Your task to perform on an android device: Go to battery settings Image 0: 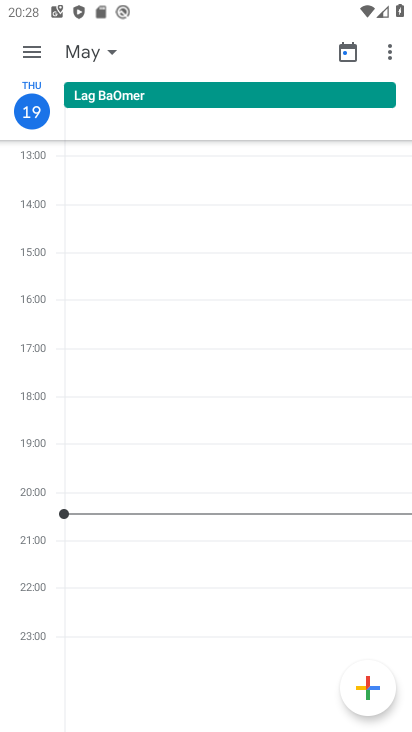
Step 0: press home button
Your task to perform on an android device: Go to battery settings Image 1: 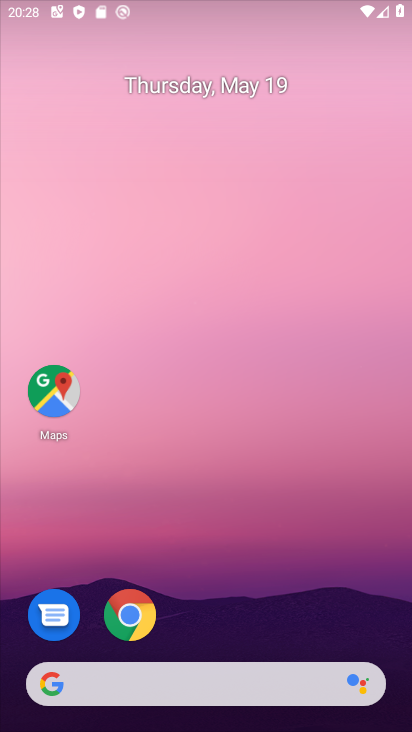
Step 1: drag from (256, 584) to (295, 57)
Your task to perform on an android device: Go to battery settings Image 2: 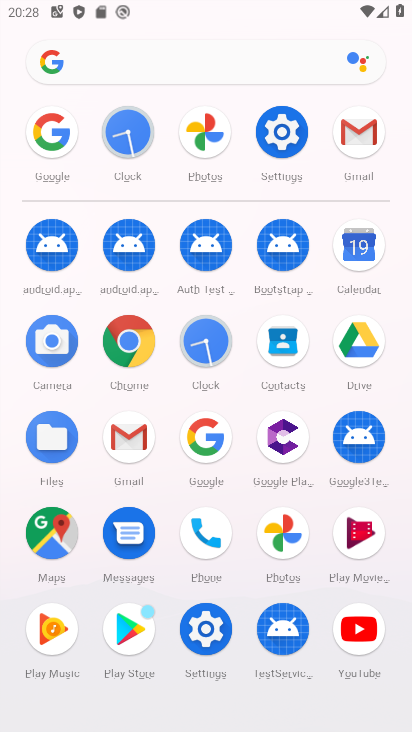
Step 2: click (278, 117)
Your task to perform on an android device: Go to battery settings Image 3: 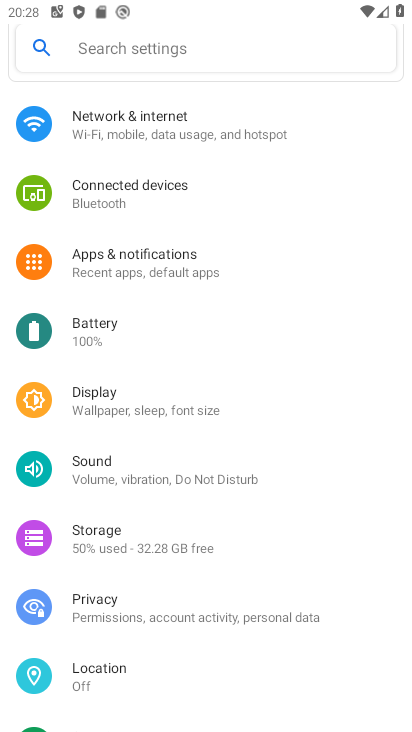
Step 3: click (133, 326)
Your task to perform on an android device: Go to battery settings Image 4: 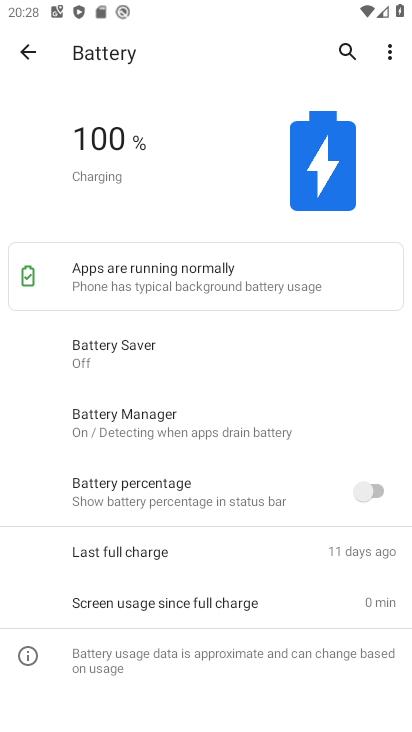
Step 4: task complete